Your task to perform on an android device: Go to privacy settings Image 0: 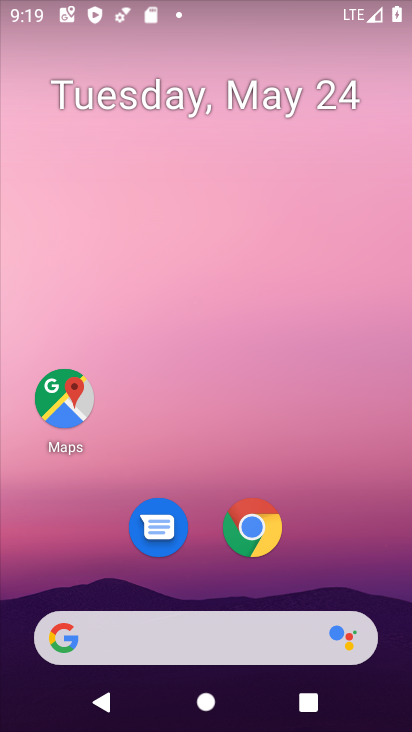
Step 0: drag from (184, 513) to (239, 81)
Your task to perform on an android device: Go to privacy settings Image 1: 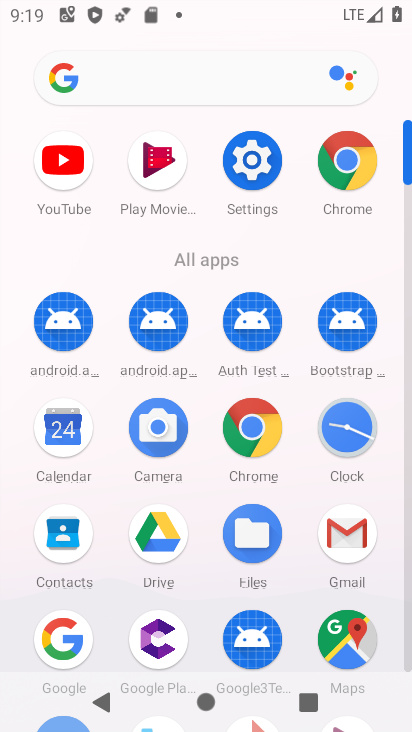
Step 1: click (248, 138)
Your task to perform on an android device: Go to privacy settings Image 2: 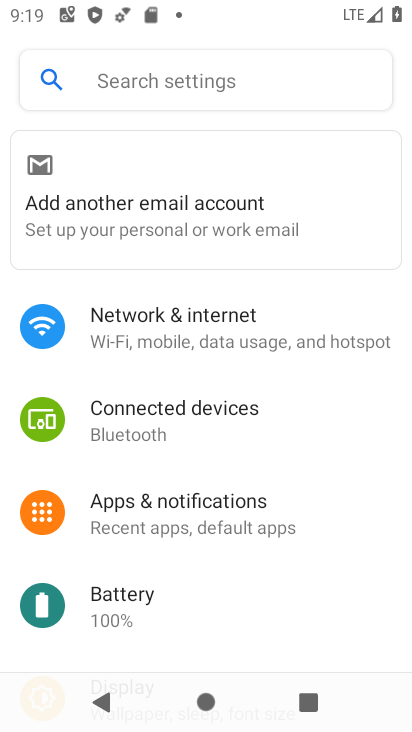
Step 2: drag from (192, 592) to (222, 75)
Your task to perform on an android device: Go to privacy settings Image 3: 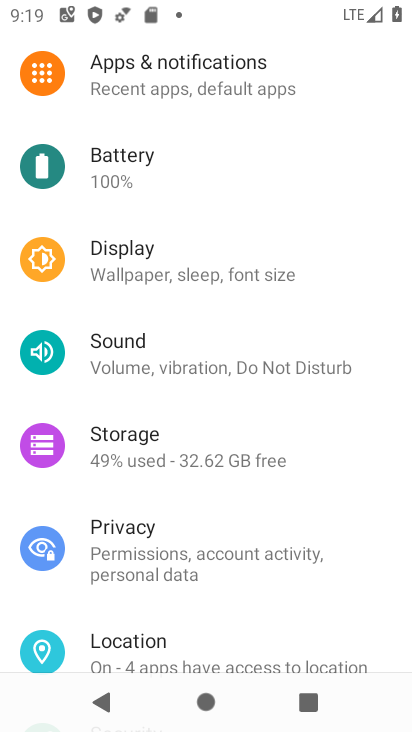
Step 3: click (170, 572)
Your task to perform on an android device: Go to privacy settings Image 4: 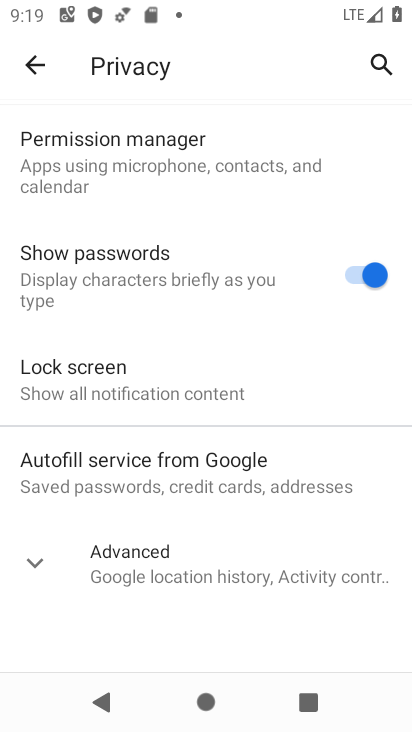
Step 4: task complete